Your task to perform on an android device: Go to privacy settings Image 0: 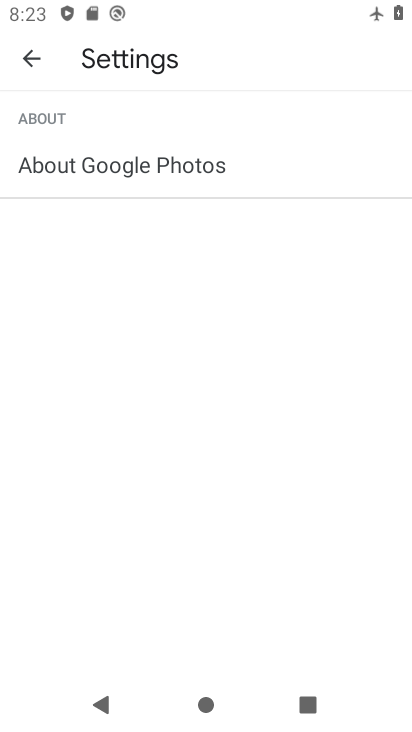
Step 0: press home button
Your task to perform on an android device: Go to privacy settings Image 1: 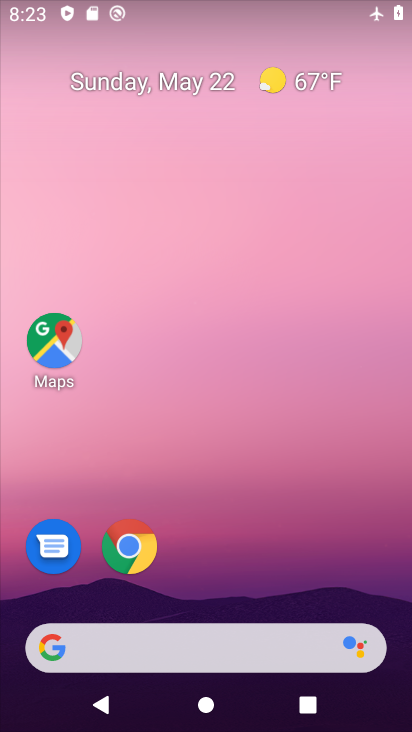
Step 1: drag from (204, 614) to (267, 18)
Your task to perform on an android device: Go to privacy settings Image 2: 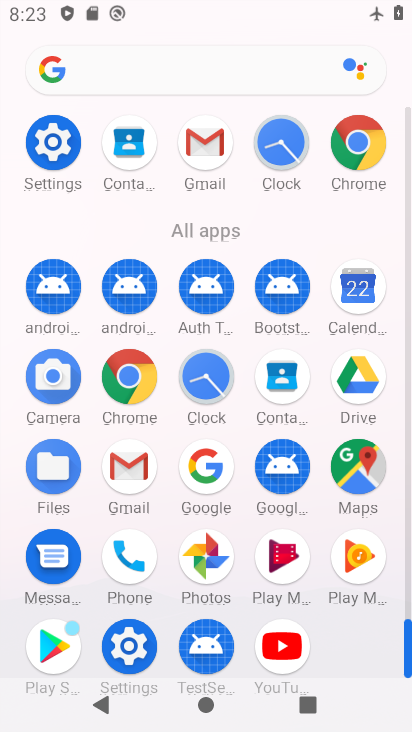
Step 2: click (136, 649)
Your task to perform on an android device: Go to privacy settings Image 3: 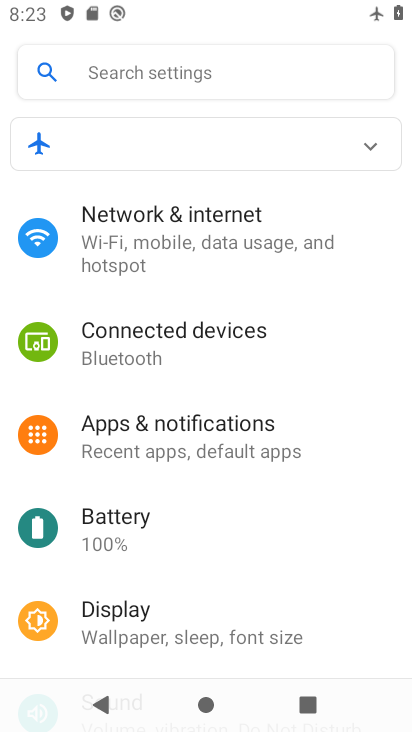
Step 3: drag from (192, 563) to (222, 52)
Your task to perform on an android device: Go to privacy settings Image 4: 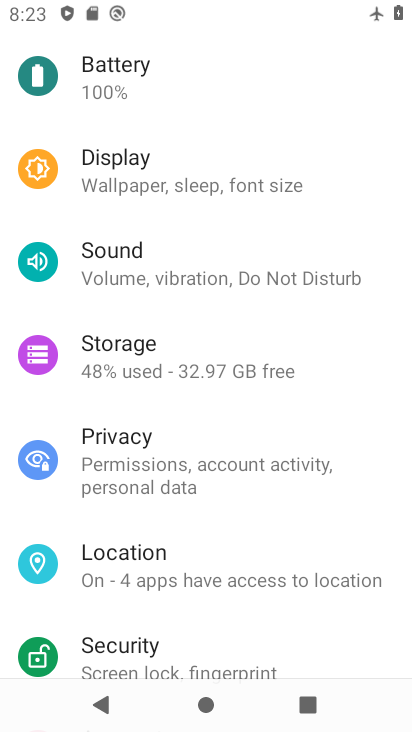
Step 4: drag from (176, 600) to (183, 502)
Your task to perform on an android device: Go to privacy settings Image 5: 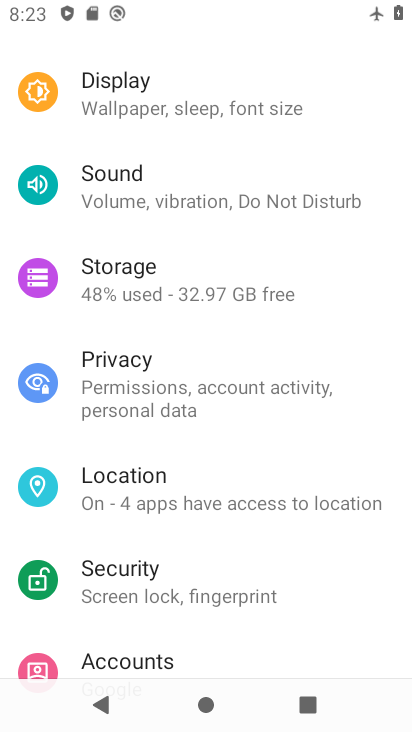
Step 5: click (146, 381)
Your task to perform on an android device: Go to privacy settings Image 6: 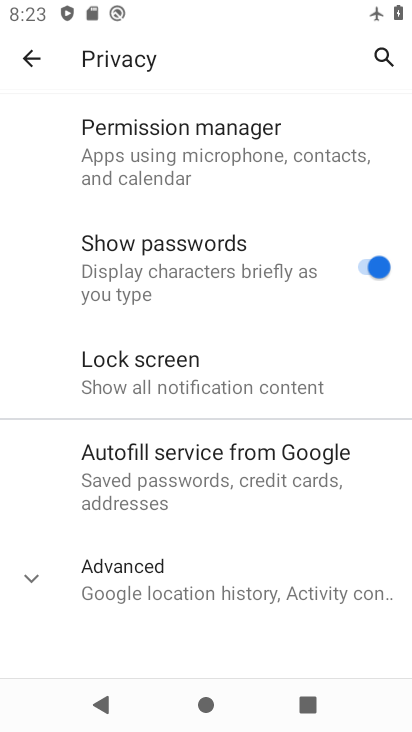
Step 6: task complete